Your task to perform on an android device: turn on the 24-hour format for clock Image 0: 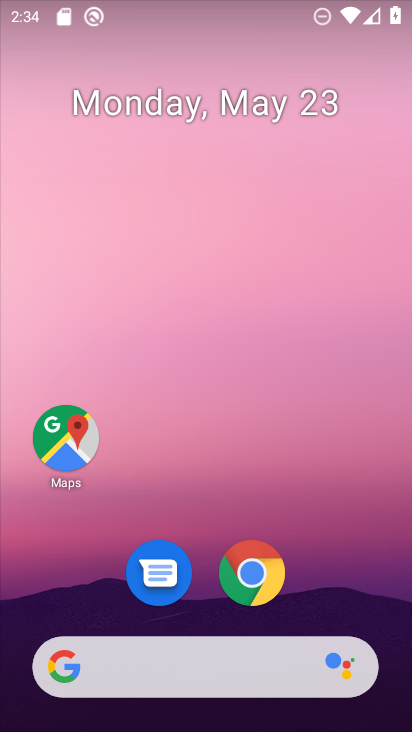
Step 0: drag from (227, 56) to (233, 15)
Your task to perform on an android device: turn on the 24-hour format for clock Image 1: 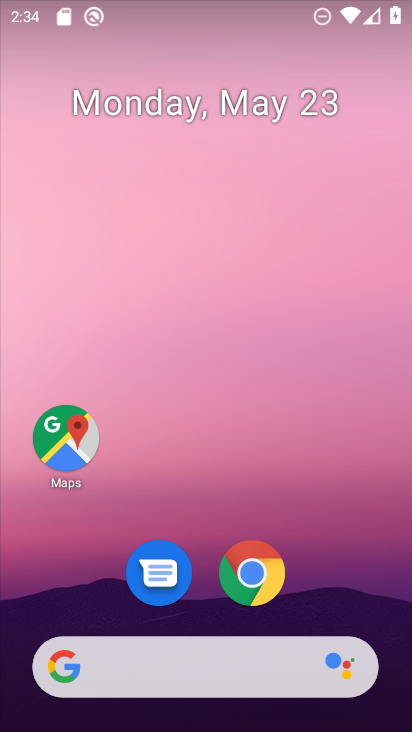
Step 1: drag from (302, 470) to (223, 30)
Your task to perform on an android device: turn on the 24-hour format for clock Image 2: 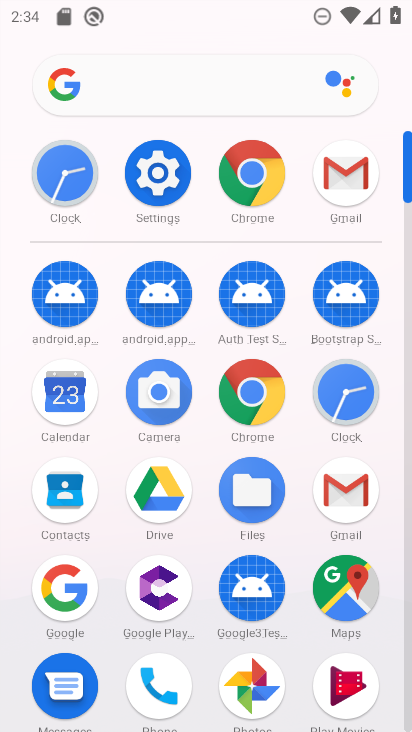
Step 2: click (347, 400)
Your task to perform on an android device: turn on the 24-hour format for clock Image 3: 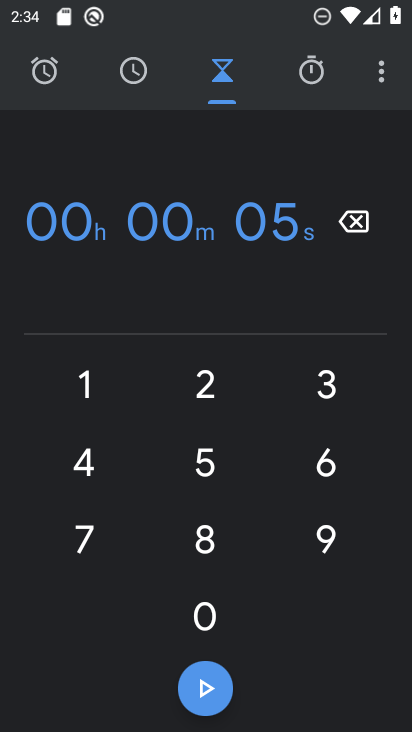
Step 3: click (380, 74)
Your task to perform on an android device: turn on the 24-hour format for clock Image 4: 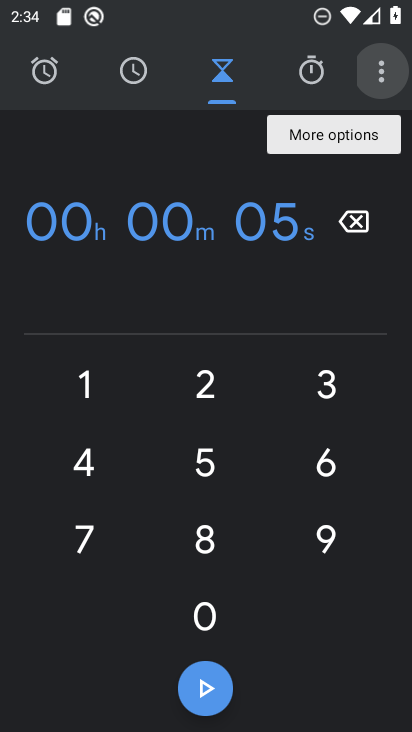
Step 4: click (380, 74)
Your task to perform on an android device: turn on the 24-hour format for clock Image 5: 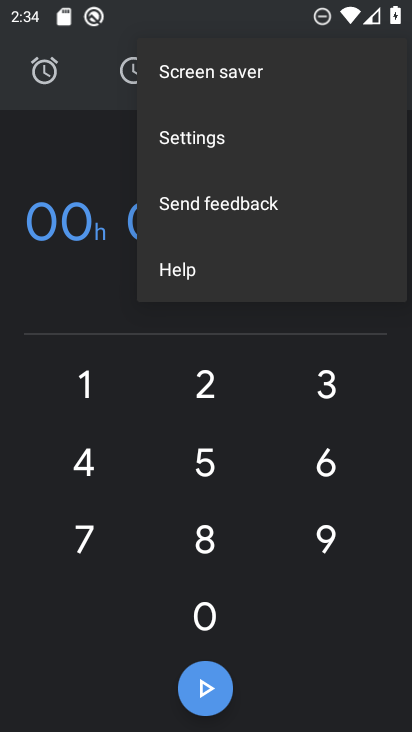
Step 5: click (219, 144)
Your task to perform on an android device: turn on the 24-hour format for clock Image 6: 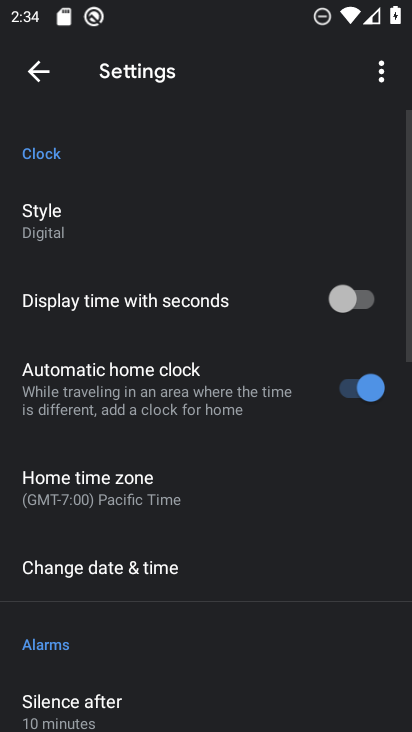
Step 6: drag from (227, 559) to (222, 134)
Your task to perform on an android device: turn on the 24-hour format for clock Image 7: 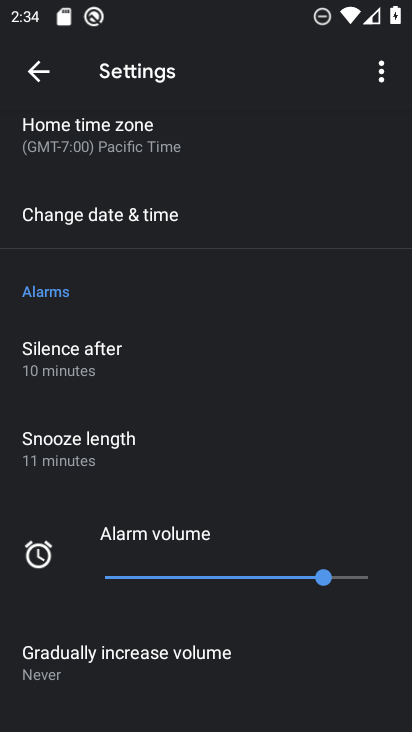
Step 7: click (158, 219)
Your task to perform on an android device: turn on the 24-hour format for clock Image 8: 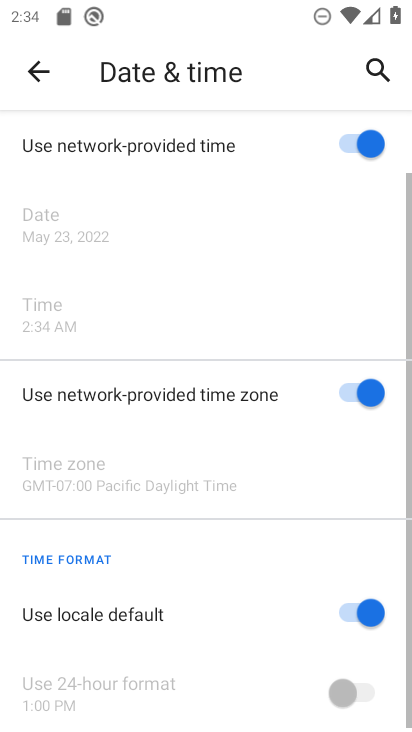
Step 8: drag from (210, 686) to (218, 294)
Your task to perform on an android device: turn on the 24-hour format for clock Image 9: 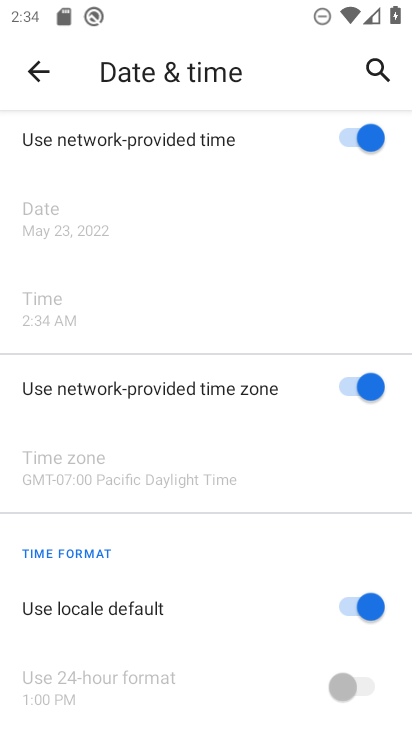
Step 9: click (358, 601)
Your task to perform on an android device: turn on the 24-hour format for clock Image 10: 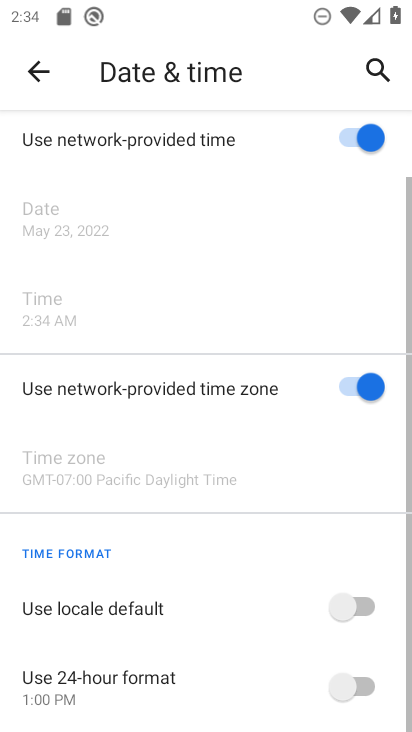
Step 10: click (347, 678)
Your task to perform on an android device: turn on the 24-hour format for clock Image 11: 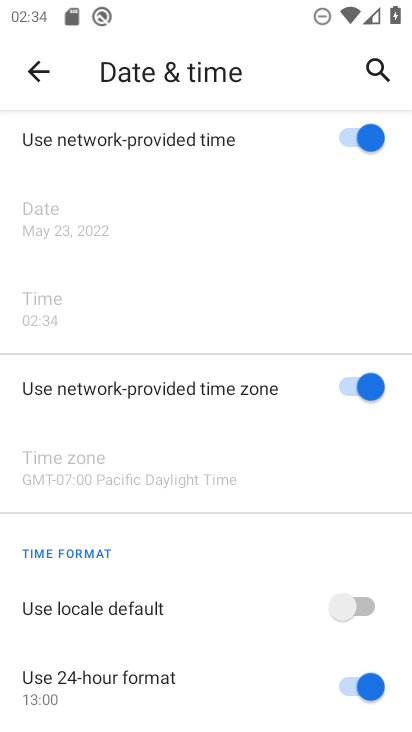
Step 11: task complete